Your task to perform on an android device: Open battery settings Image 0: 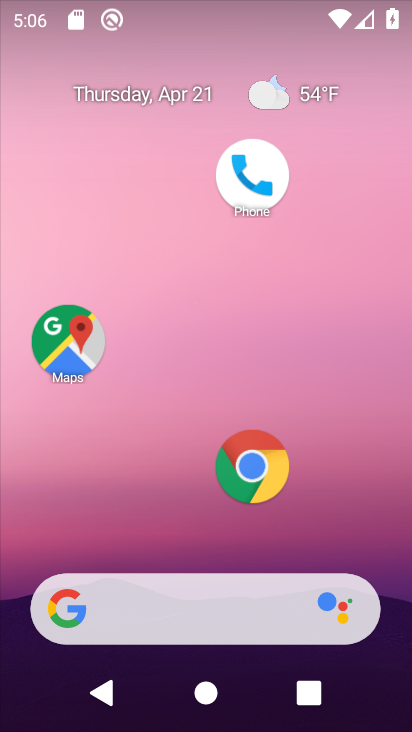
Step 0: drag from (247, 550) to (252, 93)
Your task to perform on an android device: Open battery settings Image 1: 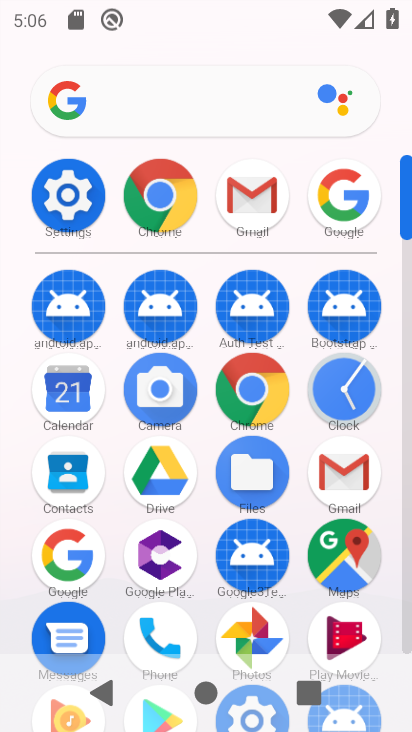
Step 1: click (71, 192)
Your task to perform on an android device: Open battery settings Image 2: 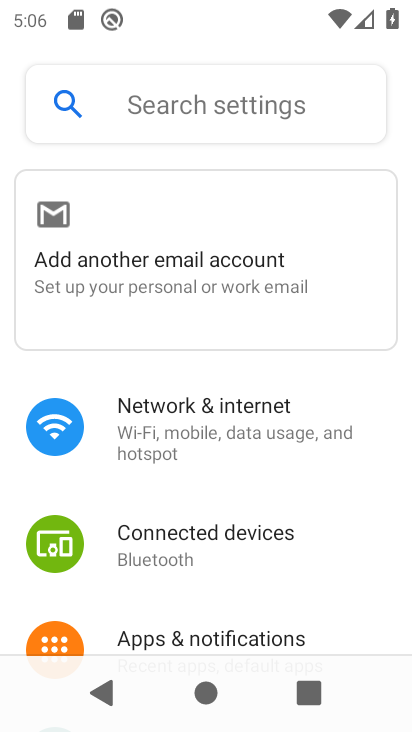
Step 2: drag from (252, 567) to (283, 26)
Your task to perform on an android device: Open battery settings Image 3: 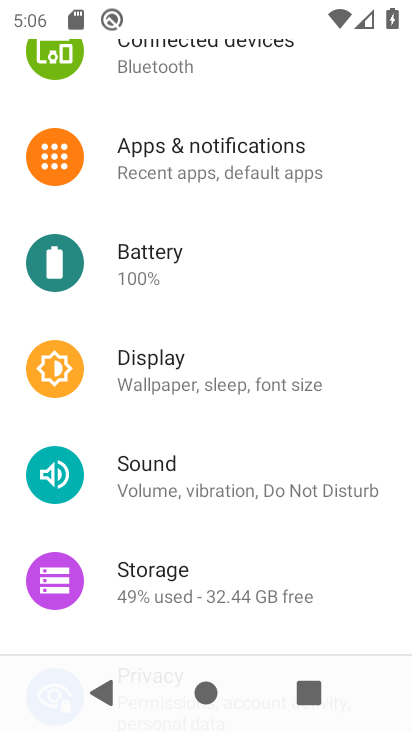
Step 3: drag from (212, 508) to (297, 71)
Your task to perform on an android device: Open battery settings Image 4: 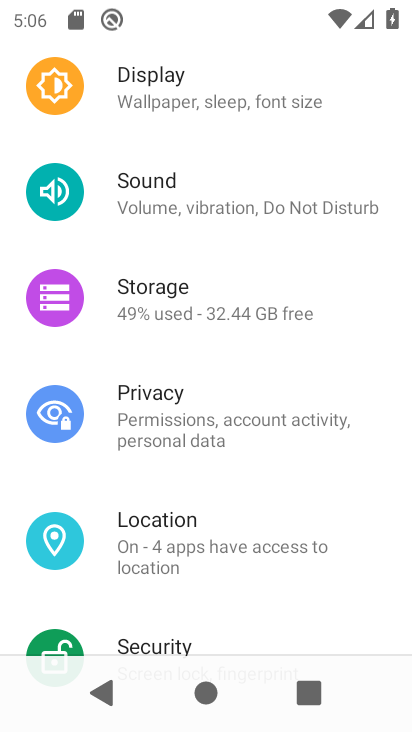
Step 4: drag from (292, 506) to (332, 78)
Your task to perform on an android device: Open battery settings Image 5: 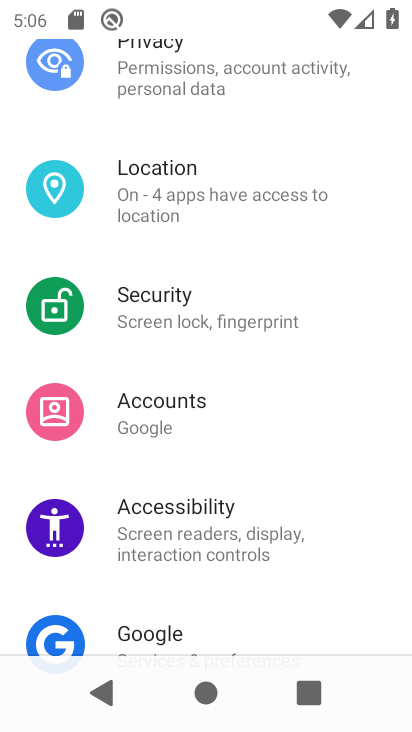
Step 5: drag from (335, 134) to (377, 722)
Your task to perform on an android device: Open battery settings Image 6: 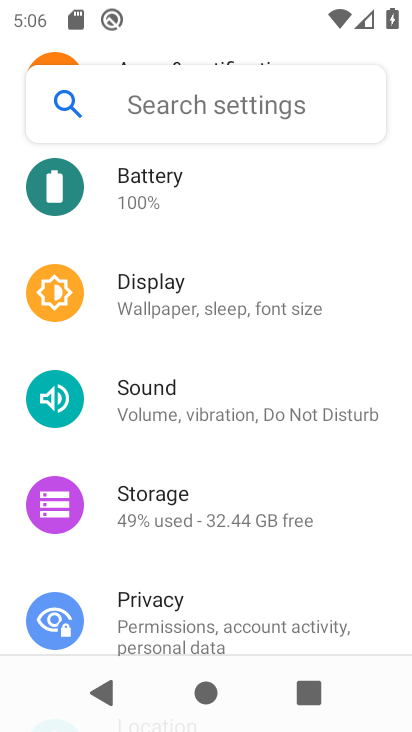
Step 6: click (173, 166)
Your task to perform on an android device: Open battery settings Image 7: 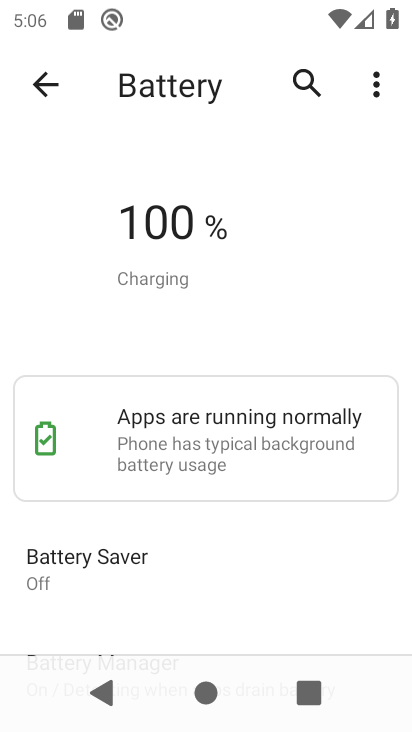
Step 7: task complete